Your task to perform on an android device: Open accessibility settings Image 0: 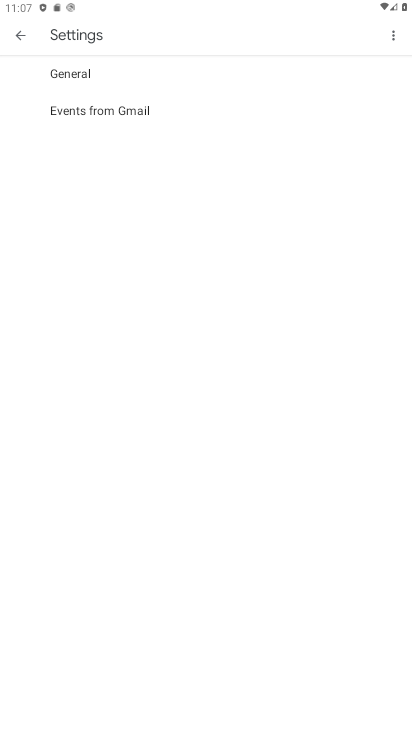
Step 0: press home button
Your task to perform on an android device: Open accessibility settings Image 1: 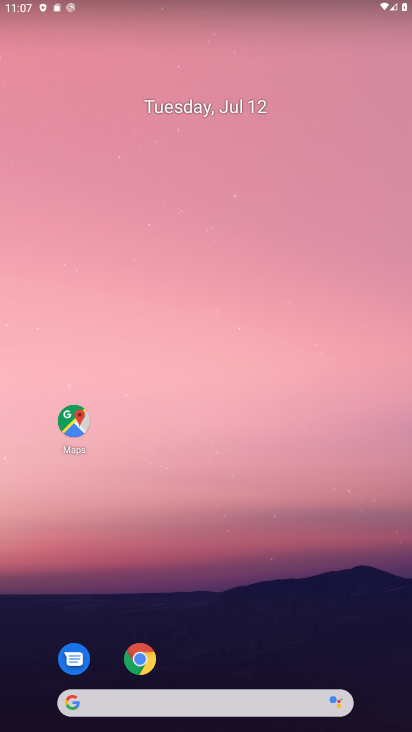
Step 1: drag from (43, 683) to (312, 106)
Your task to perform on an android device: Open accessibility settings Image 2: 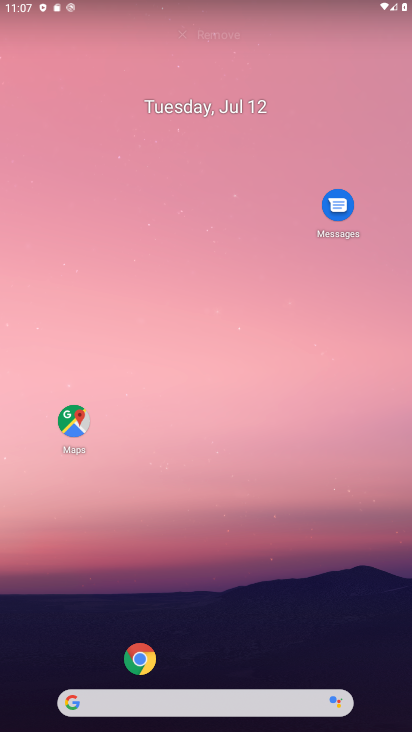
Step 2: drag from (45, 705) to (86, 30)
Your task to perform on an android device: Open accessibility settings Image 3: 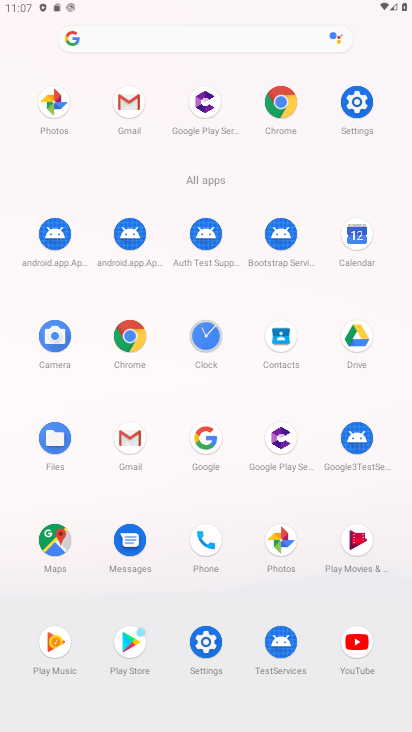
Step 3: click (192, 650)
Your task to perform on an android device: Open accessibility settings Image 4: 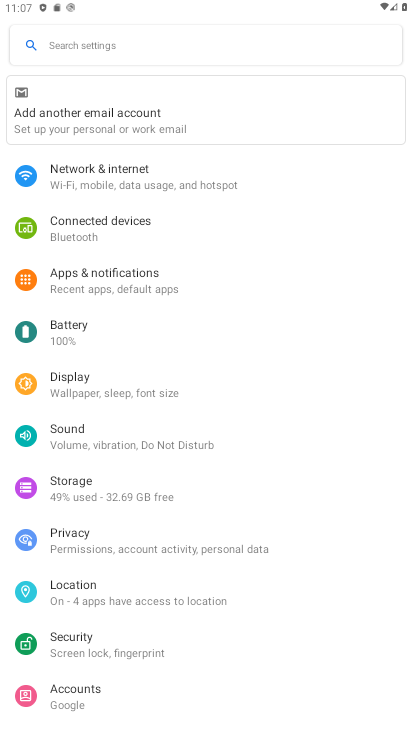
Step 4: drag from (374, 702) to (361, 44)
Your task to perform on an android device: Open accessibility settings Image 5: 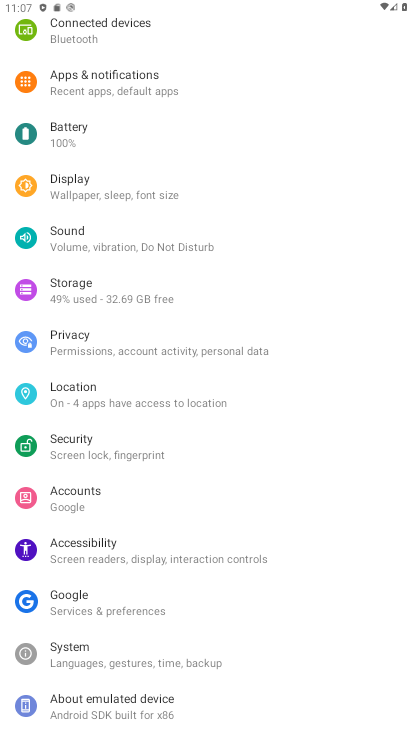
Step 5: click (139, 537)
Your task to perform on an android device: Open accessibility settings Image 6: 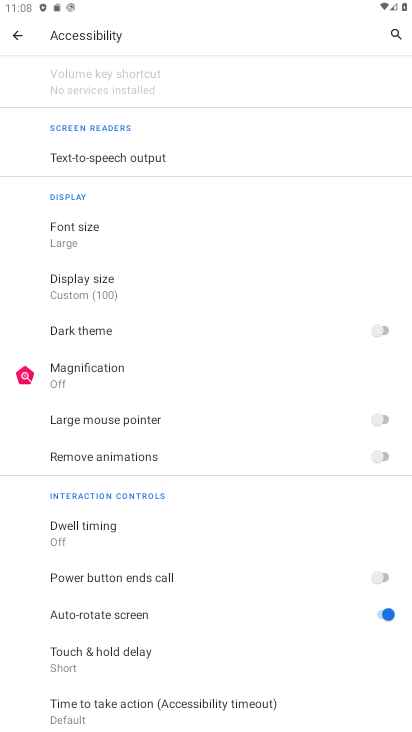
Step 6: task complete